Your task to perform on an android device: Go to accessibility settings Image 0: 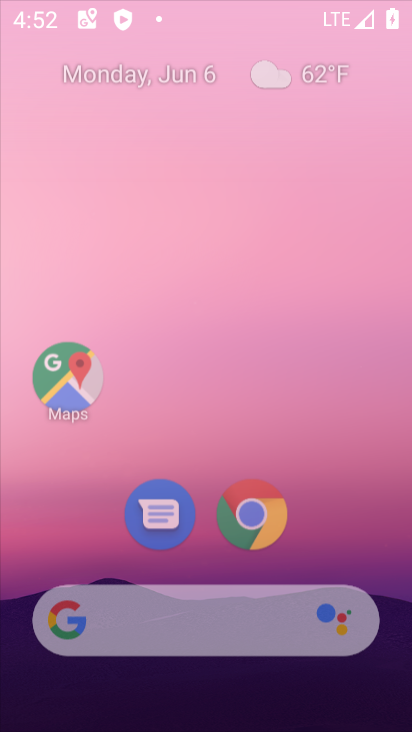
Step 0: click (186, 135)
Your task to perform on an android device: Go to accessibility settings Image 1: 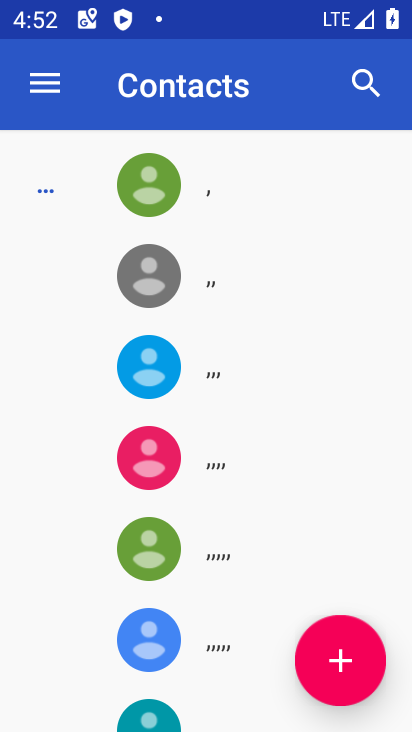
Step 1: press home button
Your task to perform on an android device: Go to accessibility settings Image 2: 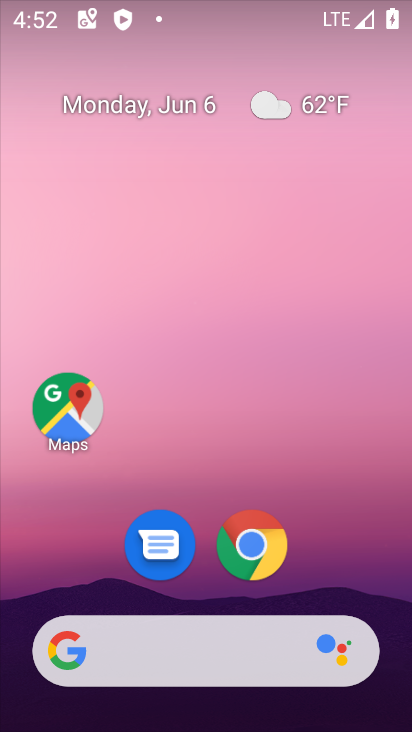
Step 2: drag from (208, 723) to (167, 154)
Your task to perform on an android device: Go to accessibility settings Image 3: 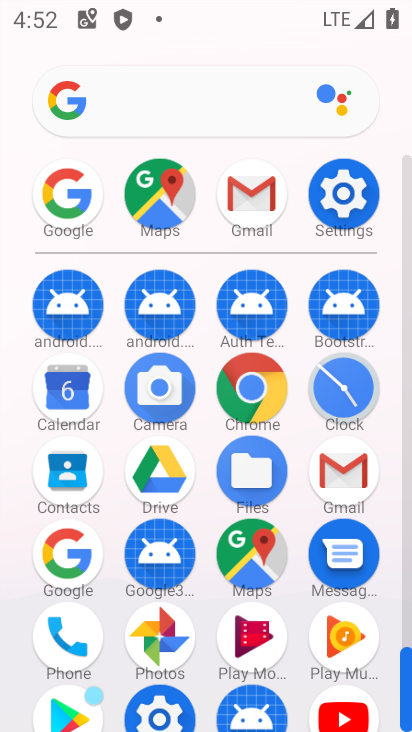
Step 3: click (342, 189)
Your task to perform on an android device: Go to accessibility settings Image 4: 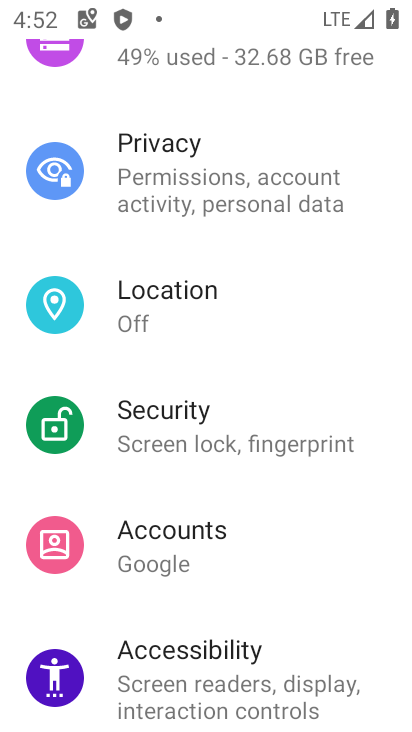
Step 4: click (154, 663)
Your task to perform on an android device: Go to accessibility settings Image 5: 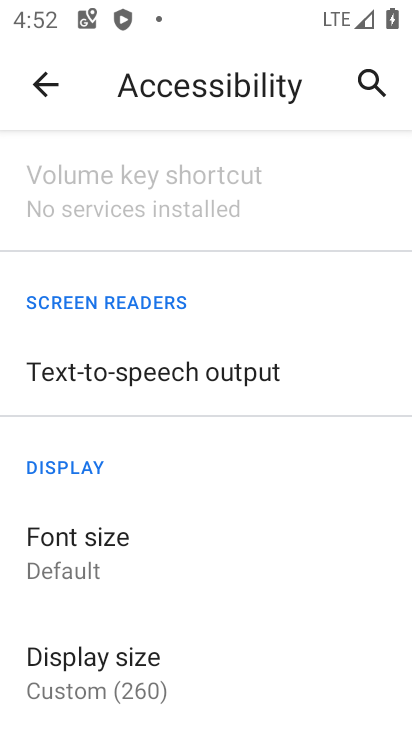
Step 5: task complete